Your task to perform on an android device: Go to location settings Image 0: 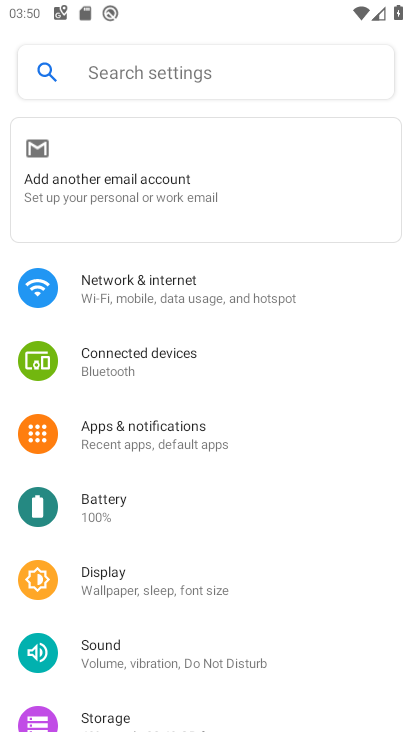
Step 0: drag from (117, 631) to (232, 139)
Your task to perform on an android device: Go to location settings Image 1: 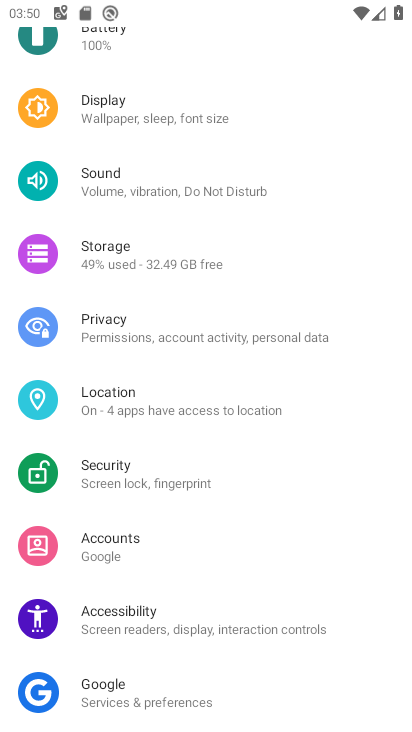
Step 1: click (167, 401)
Your task to perform on an android device: Go to location settings Image 2: 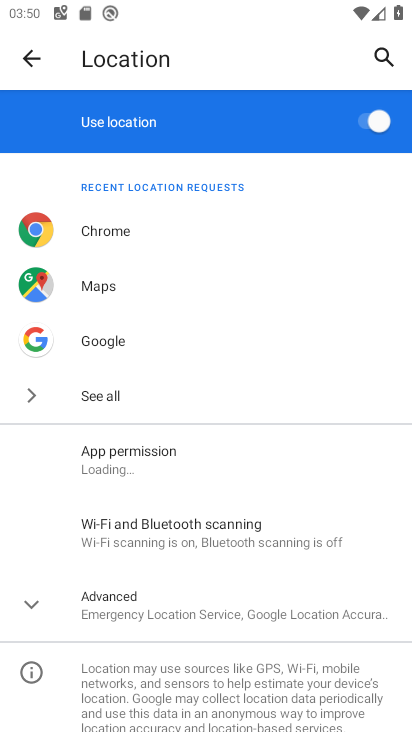
Step 2: task complete